Your task to perform on an android device: Go to display settings Image 0: 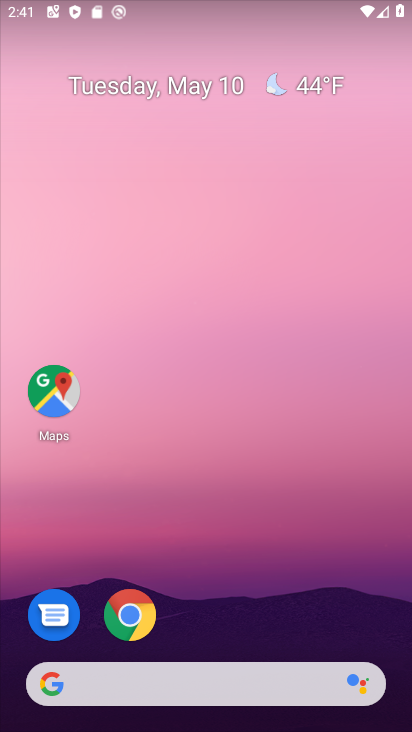
Step 0: drag from (375, 593) to (238, 89)
Your task to perform on an android device: Go to display settings Image 1: 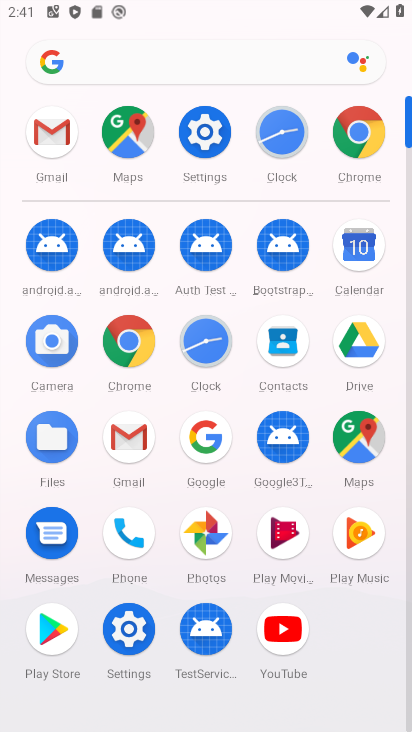
Step 1: click (125, 634)
Your task to perform on an android device: Go to display settings Image 2: 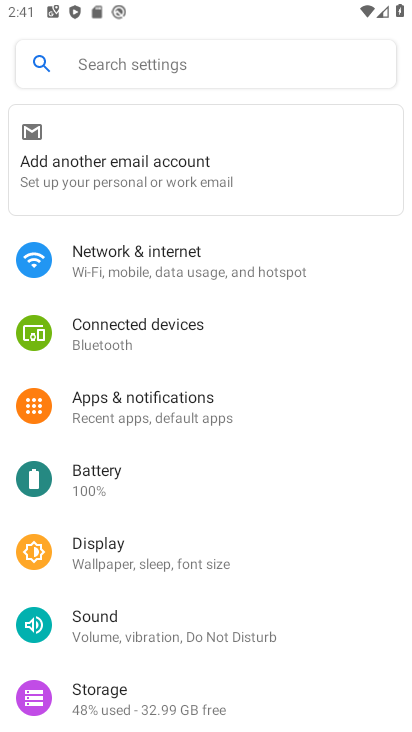
Step 2: click (132, 565)
Your task to perform on an android device: Go to display settings Image 3: 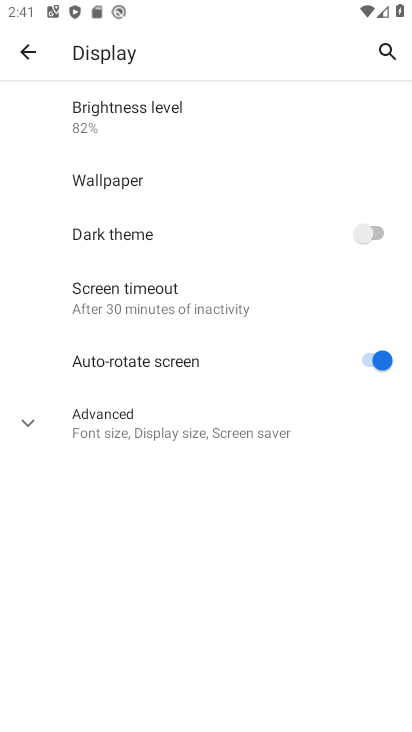
Step 3: task complete